Your task to perform on an android device: Open Google Maps and go to "Timeline" Image 0: 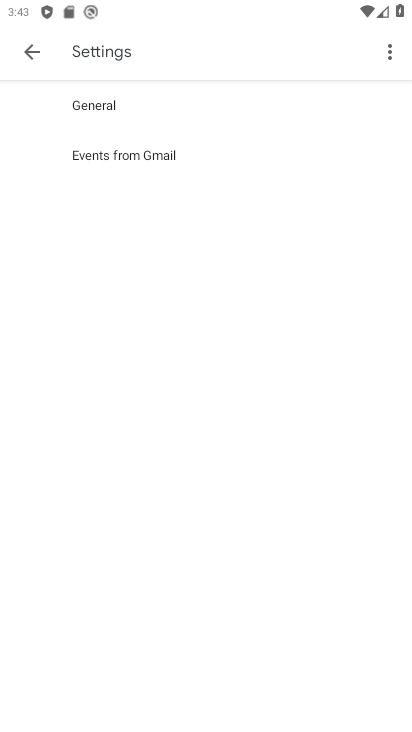
Step 0: press home button
Your task to perform on an android device: Open Google Maps and go to "Timeline" Image 1: 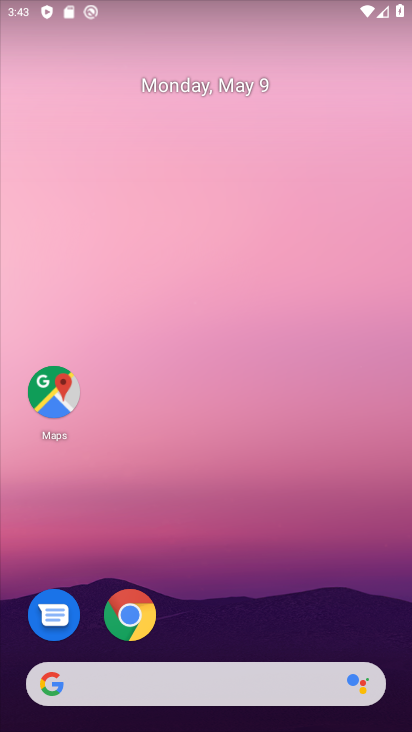
Step 1: click (48, 415)
Your task to perform on an android device: Open Google Maps and go to "Timeline" Image 2: 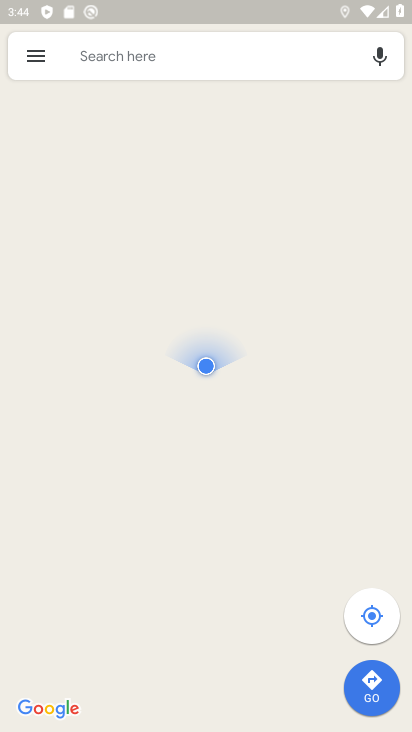
Step 2: click (40, 51)
Your task to perform on an android device: Open Google Maps and go to "Timeline" Image 3: 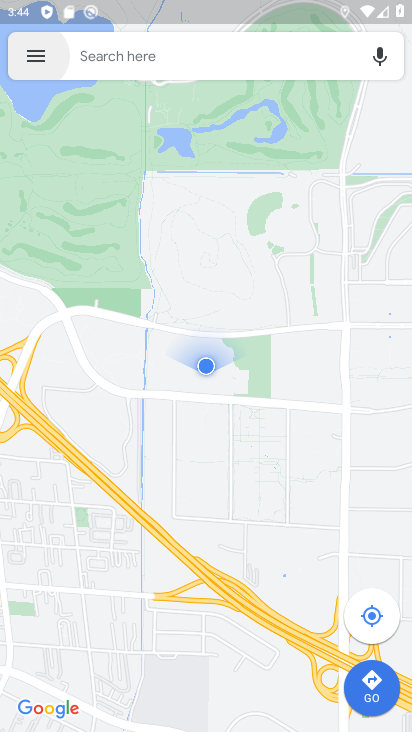
Step 3: drag from (35, 50) to (98, 257)
Your task to perform on an android device: Open Google Maps and go to "Timeline" Image 4: 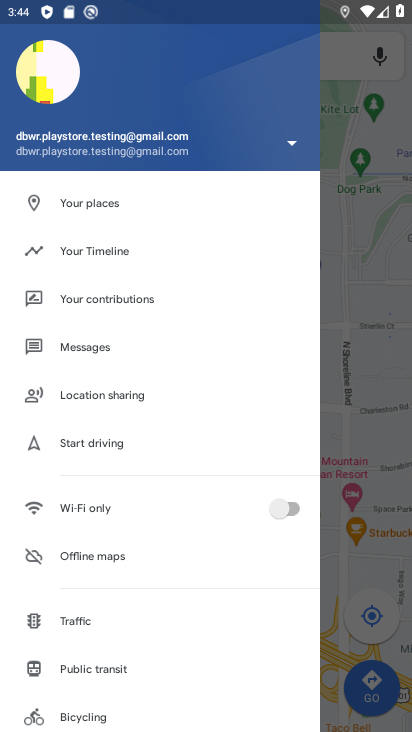
Step 4: click (97, 256)
Your task to perform on an android device: Open Google Maps and go to "Timeline" Image 5: 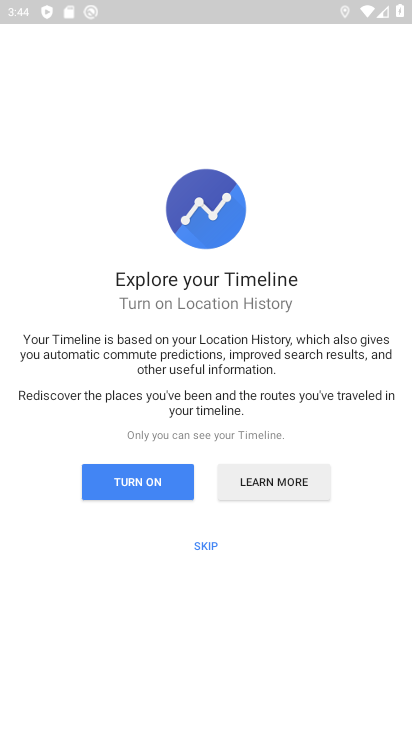
Step 5: click (207, 548)
Your task to perform on an android device: Open Google Maps and go to "Timeline" Image 6: 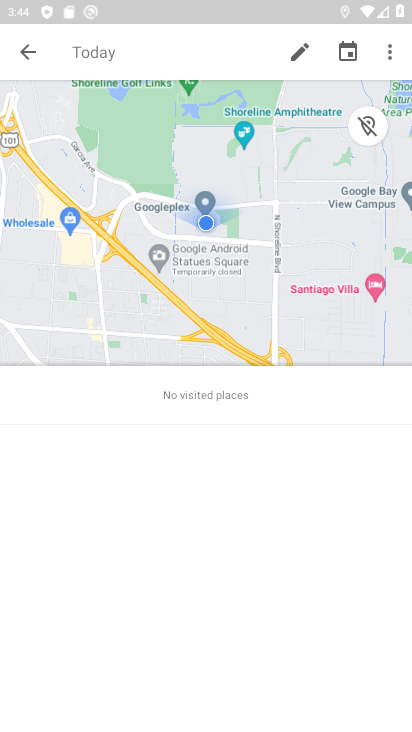
Step 6: task complete